Your task to perform on an android device: allow notifications from all sites in the chrome app Image 0: 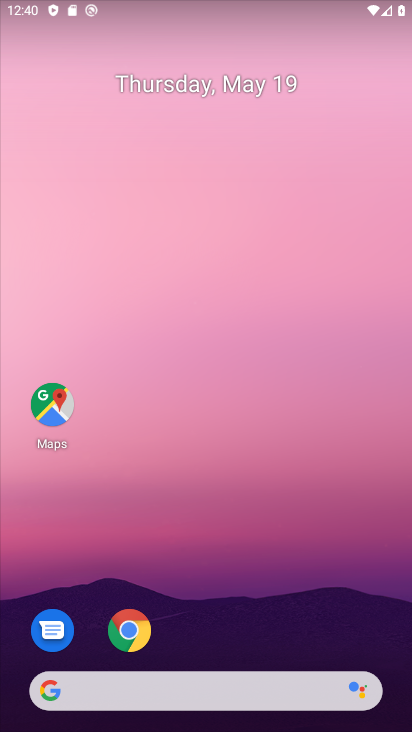
Step 0: click (124, 629)
Your task to perform on an android device: allow notifications from all sites in the chrome app Image 1: 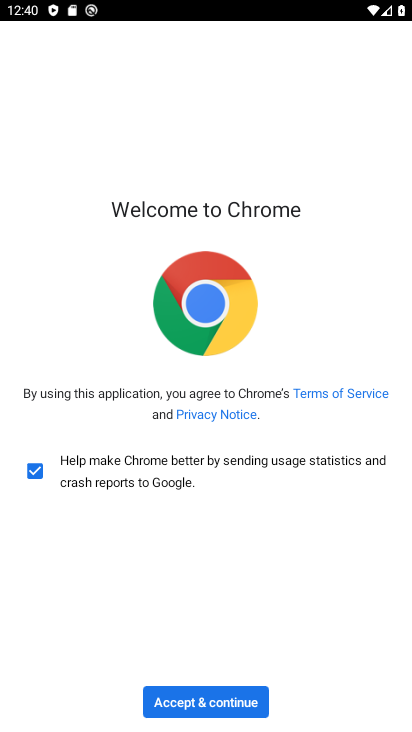
Step 1: click (175, 695)
Your task to perform on an android device: allow notifications from all sites in the chrome app Image 2: 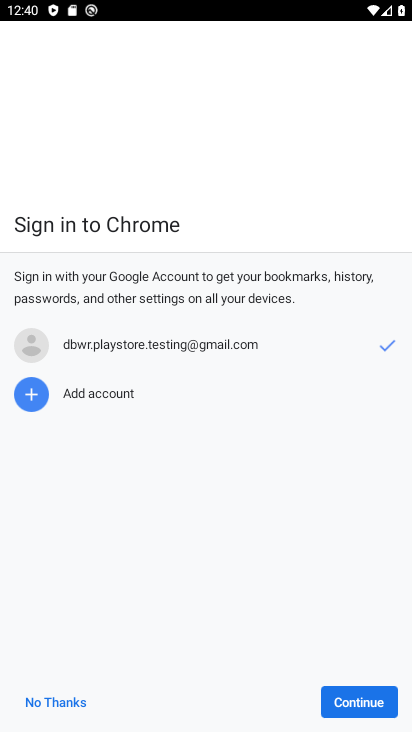
Step 2: click (359, 703)
Your task to perform on an android device: allow notifications from all sites in the chrome app Image 3: 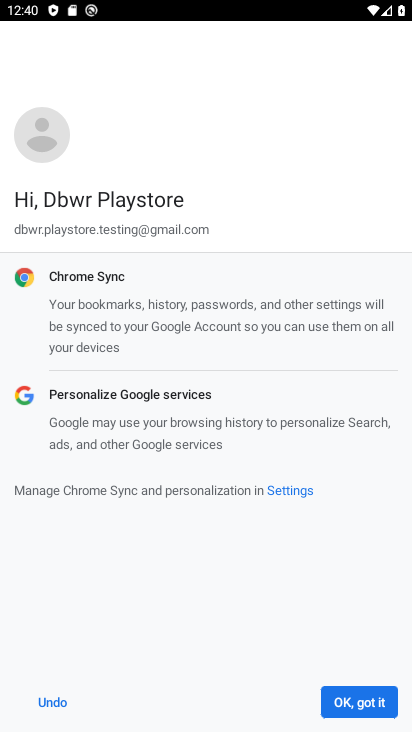
Step 3: click (360, 703)
Your task to perform on an android device: allow notifications from all sites in the chrome app Image 4: 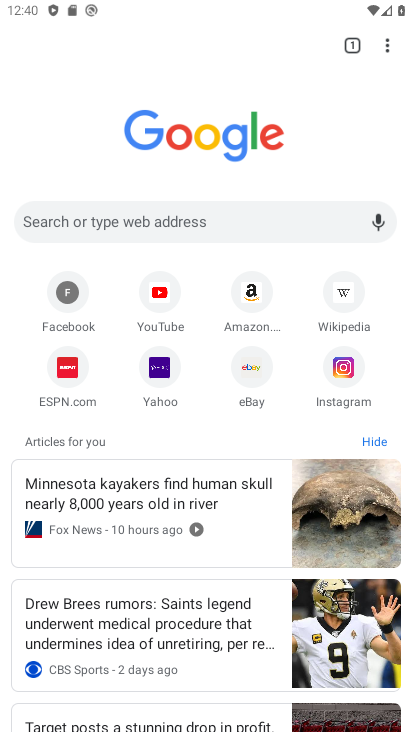
Step 4: click (382, 42)
Your task to perform on an android device: allow notifications from all sites in the chrome app Image 5: 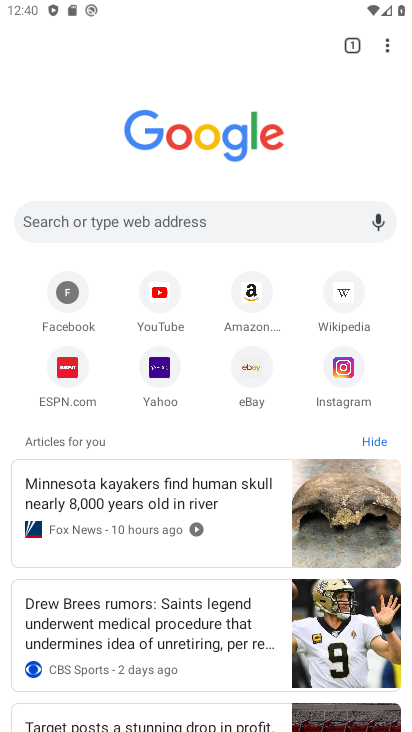
Step 5: click (383, 43)
Your task to perform on an android device: allow notifications from all sites in the chrome app Image 6: 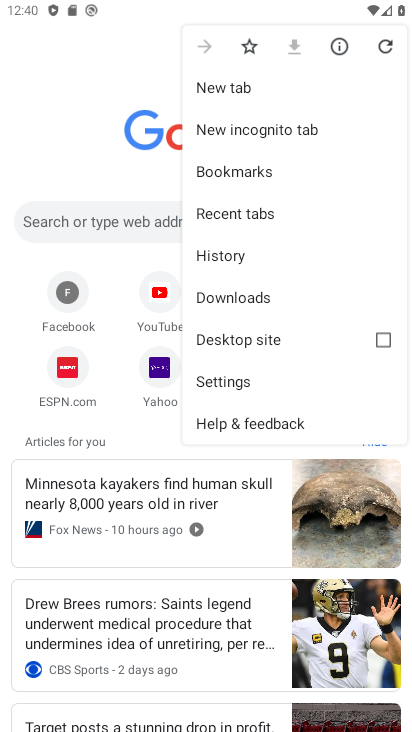
Step 6: click (231, 388)
Your task to perform on an android device: allow notifications from all sites in the chrome app Image 7: 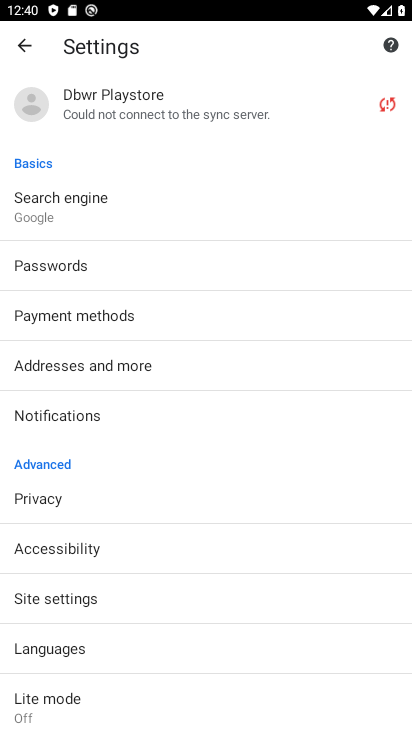
Step 7: click (74, 408)
Your task to perform on an android device: allow notifications from all sites in the chrome app Image 8: 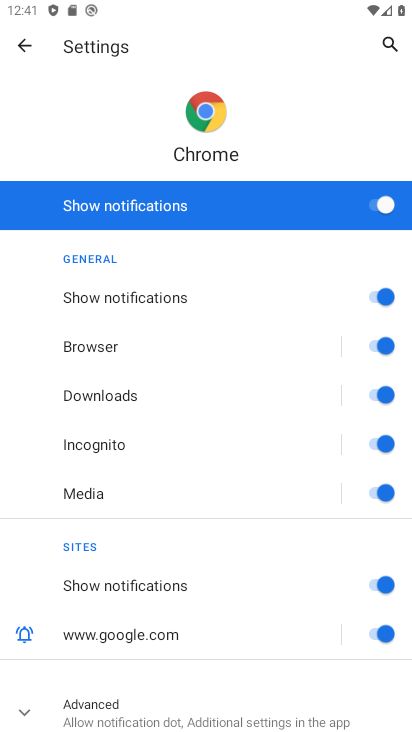
Step 8: task complete